Your task to perform on an android device: Open calendar and show me the first week of next month Image 0: 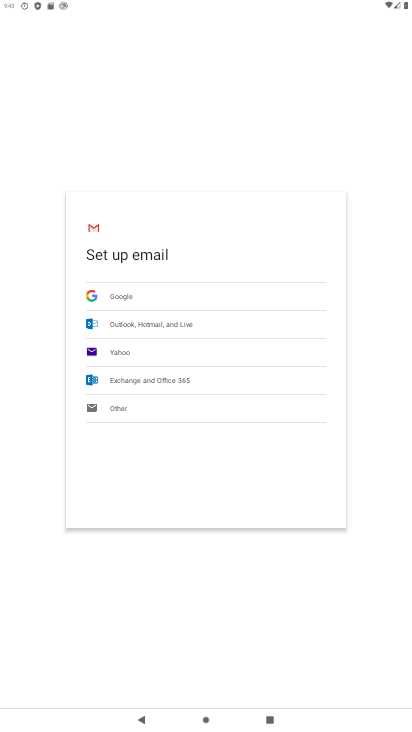
Step 0: press home button
Your task to perform on an android device: Open calendar and show me the first week of next month Image 1: 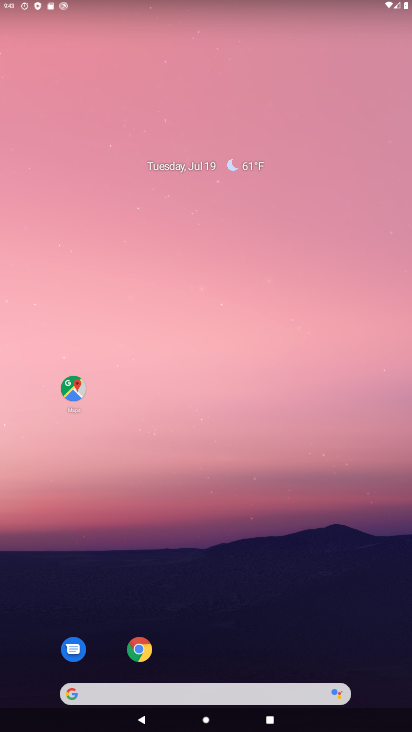
Step 1: drag from (276, 576) to (226, 48)
Your task to perform on an android device: Open calendar and show me the first week of next month Image 2: 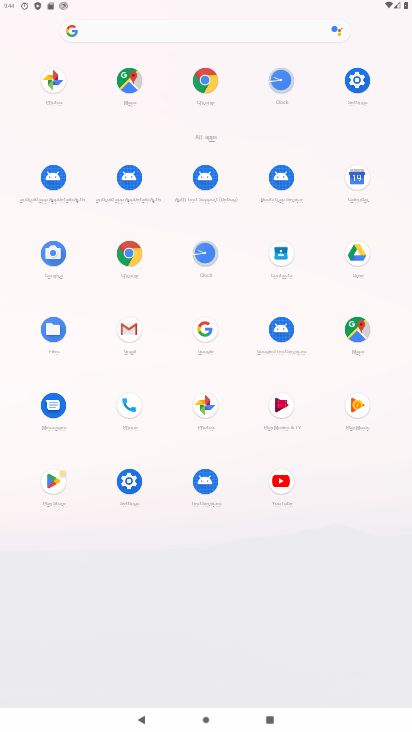
Step 2: click (354, 176)
Your task to perform on an android device: Open calendar and show me the first week of next month Image 3: 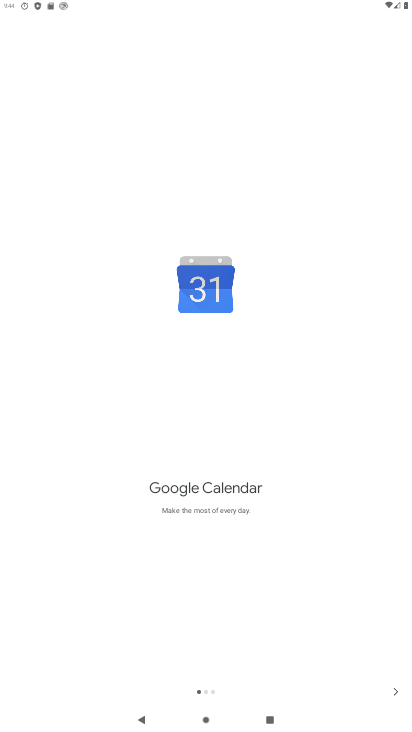
Step 3: click (402, 693)
Your task to perform on an android device: Open calendar and show me the first week of next month Image 4: 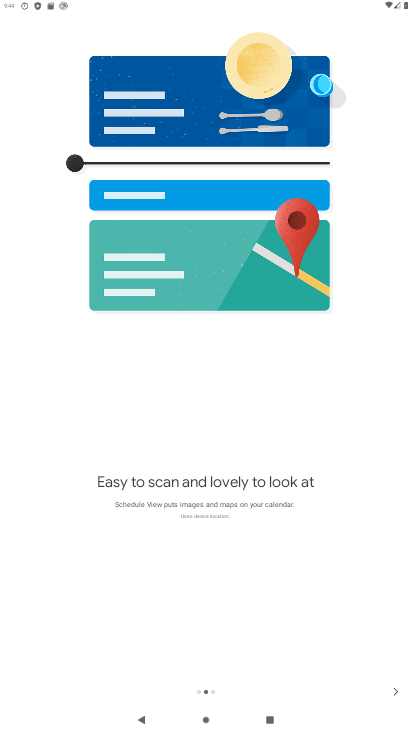
Step 4: click (402, 693)
Your task to perform on an android device: Open calendar and show me the first week of next month Image 5: 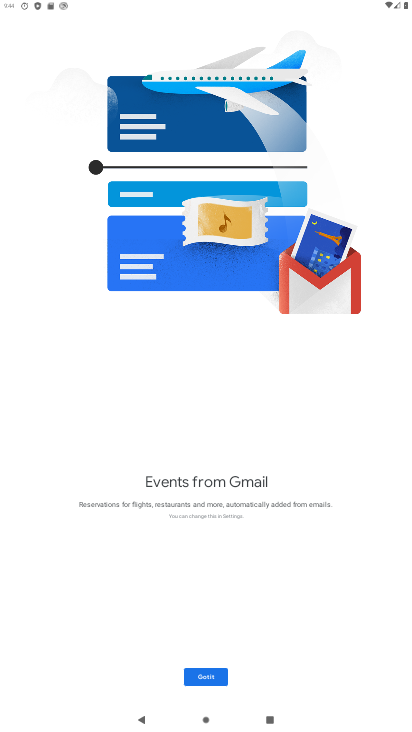
Step 5: click (215, 673)
Your task to perform on an android device: Open calendar and show me the first week of next month Image 6: 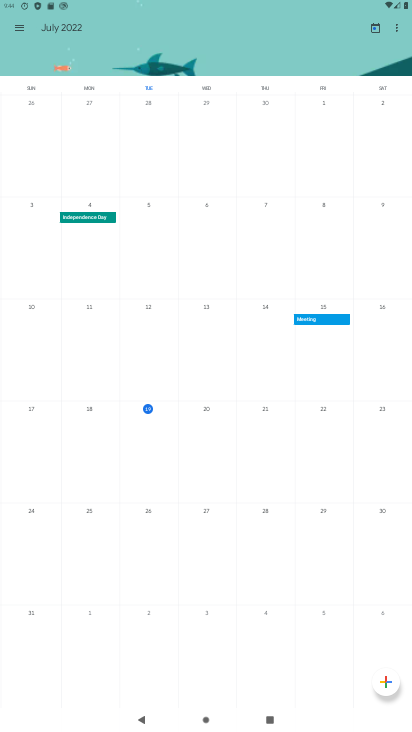
Step 6: click (16, 31)
Your task to perform on an android device: Open calendar and show me the first week of next month Image 7: 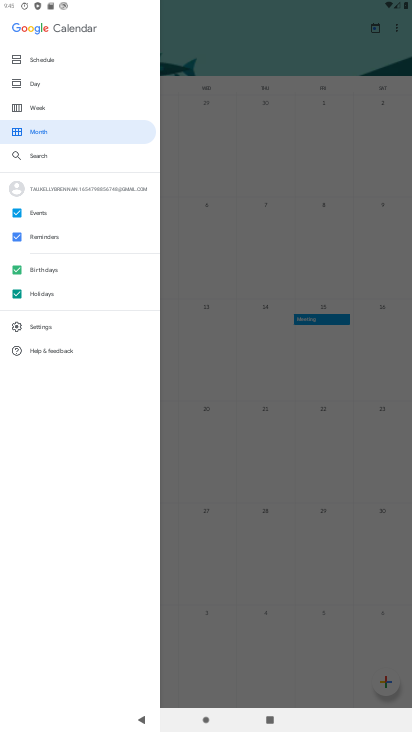
Step 7: click (30, 103)
Your task to perform on an android device: Open calendar and show me the first week of next month Image 8: 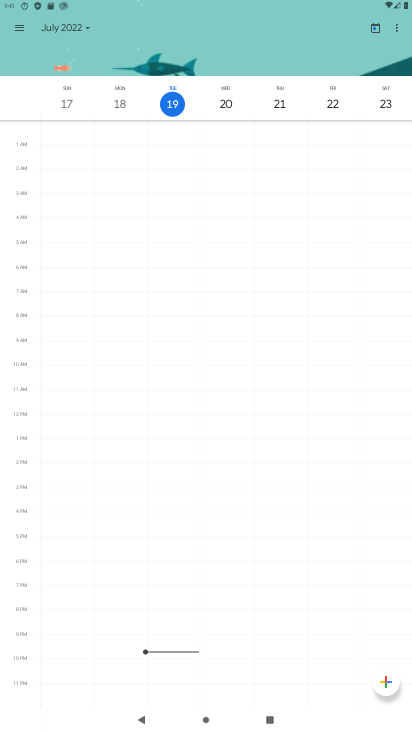
Step 8: click (85, 27)
Your task to perform on an android device: Open calendar and show me the first week of next month Image 9: 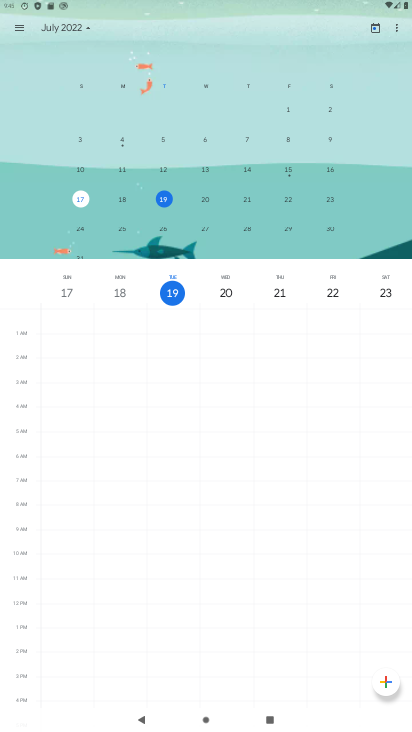
Step 9: drag from (293, 132) to (12, 123)
Your task to perform on an android device: Open calendar and show me the first week of next month Image 10: 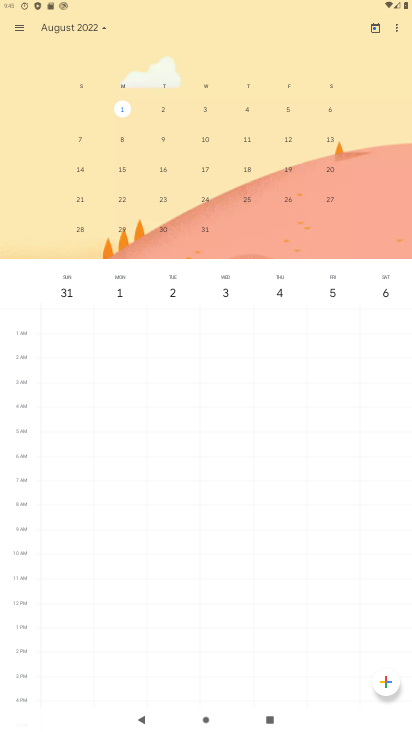
Step 10: click (159, 105)
Your task to perform on an android device: Open calendar and show me the first week of next month Image 11: 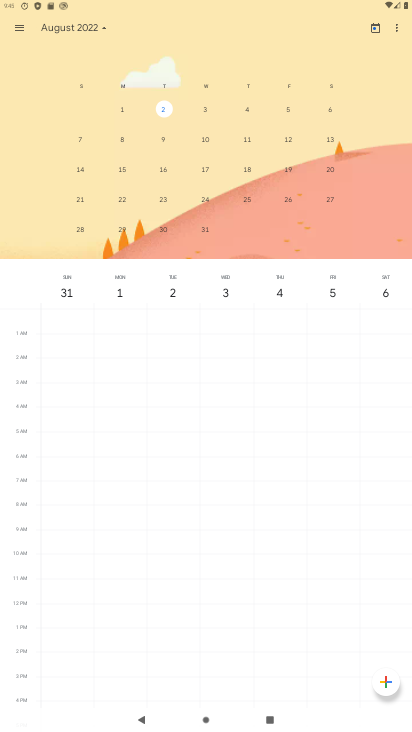
Step 11: task complete